Your task to perform on an android device: turn off wifi Image 0: 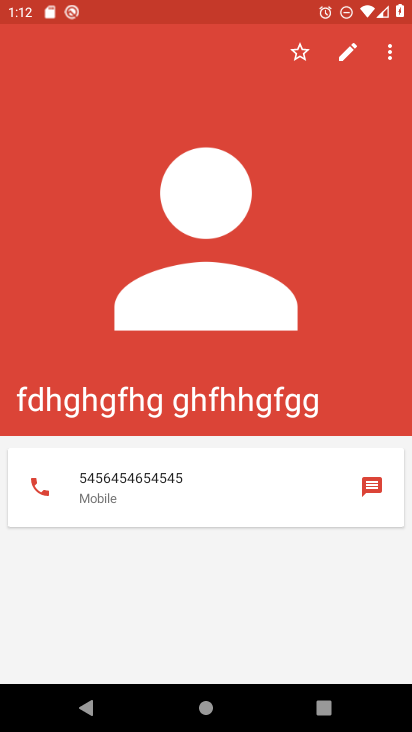
Step 0: press home button
Your task to perform on an android device: turn off wifi Image 1: 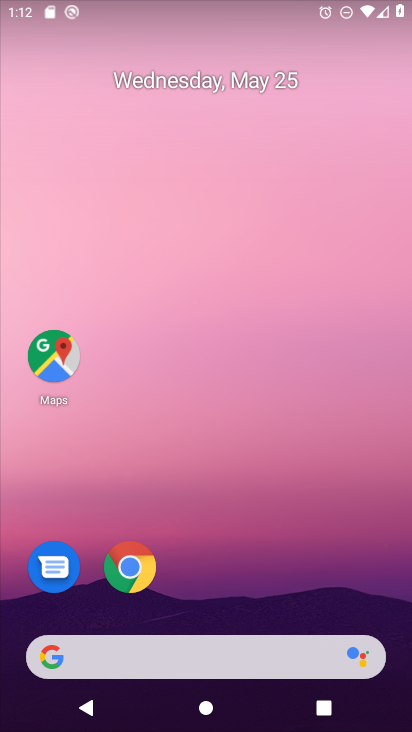
Step 1: drag from (406, 681) to (372, 307)
Your task to perform on an android device: turn off wifi Image 2: 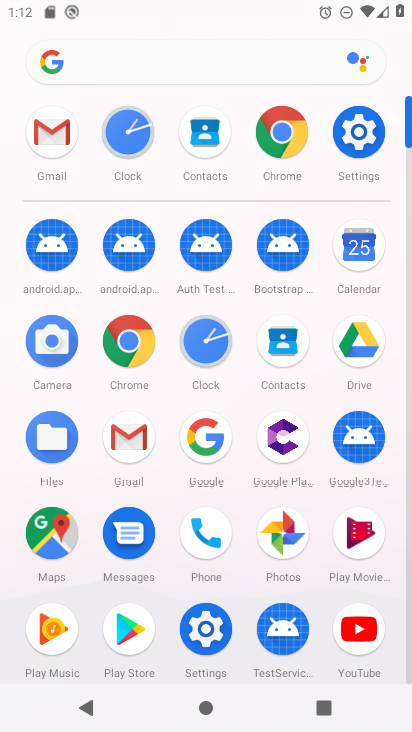
Step 2: click (358, 139)
Your task to perform on an android device: turn off wifi Image 3: 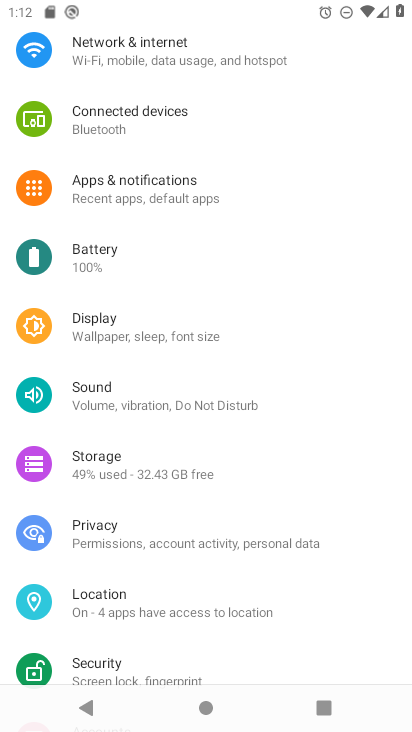
Step 3: drag from (323, 85) to (303, 396)
Your task to perform on an android device: turn off wifi Image 4: 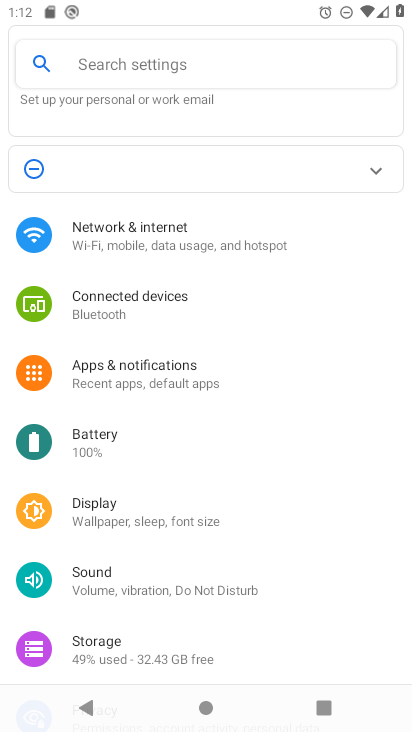
Step 4: click (121, 238)
Your task to perform on an android device: turn off wifi Image 5: 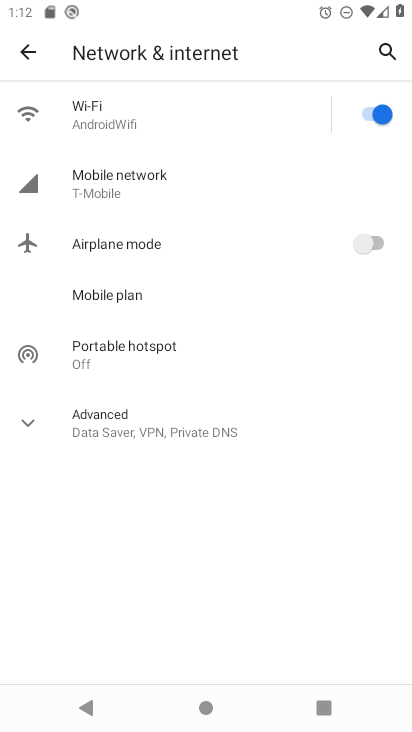
Step 5: click (372, 114)
Your task to perform on an android device: turn off wifi Image 6: 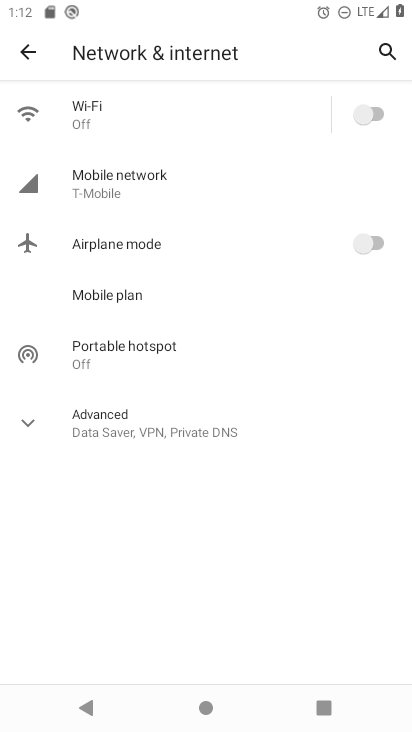
Step 6: task complete